Your task to perform on an android device: add a contact in the contacts app Image 0: 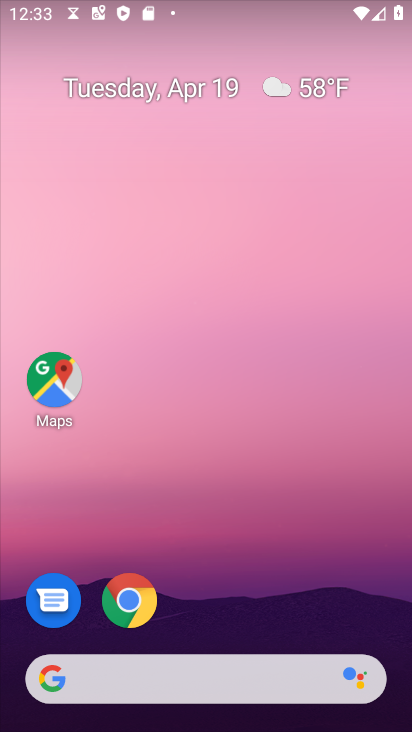
Step 0: drag from (252, 631) to (195, 287)
Your task to perform on an android device: add a contact in the contacts app Image 1: 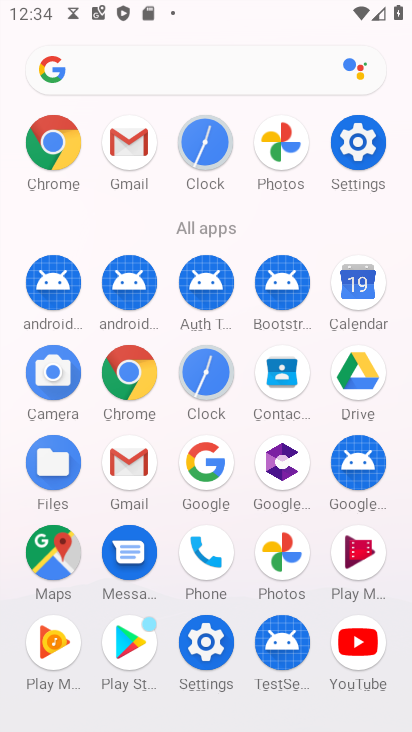
Step 1: click (278, 375)
Your task to perform on an android device: add a contact in the contacts app Image 2: 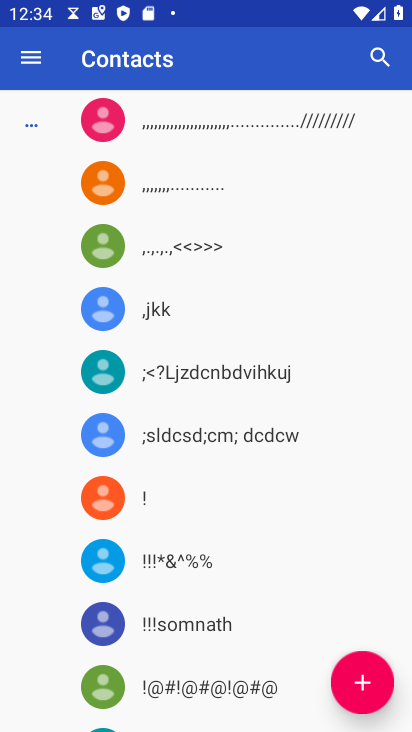
Step 2: click (365, 662)
Your task to perform on an android device: add a contact in the contacts app Image 3: 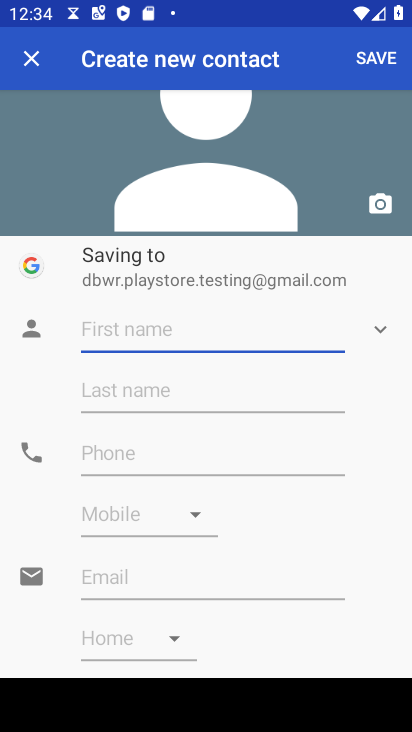
Step 3: type "dfhhh"
Your task to perform on an android device: add a contact in the contacts app Image 4: 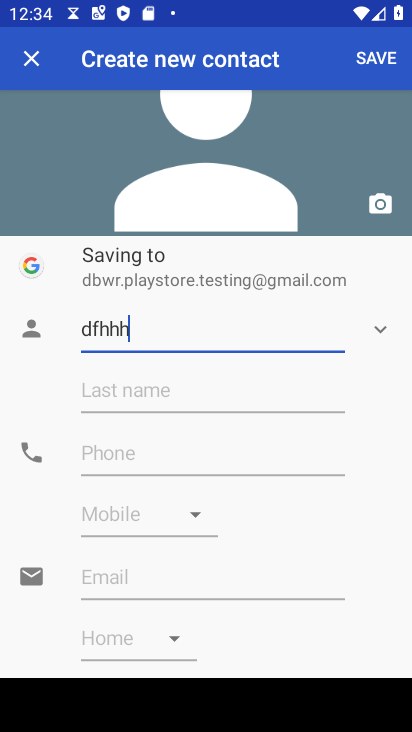
Step 4: click (190, 468)
Your task to perform on an android device: add a contact in the contacts app Image 5: 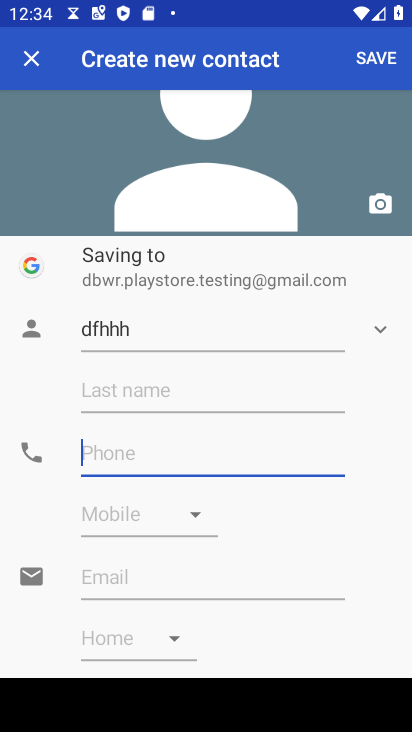
Step 5: type "45245567"
Your task to perform on an android device: add a contact in the contacts app Image 6: 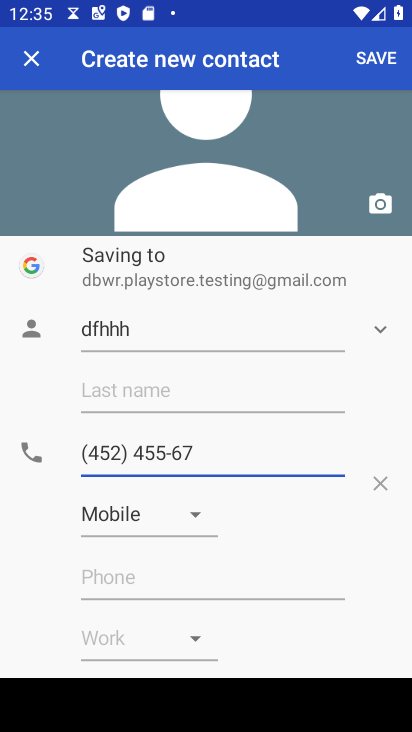
Step 6: type "]"
Your task to perform on an android device: add a contact in the contacts app Image 7: 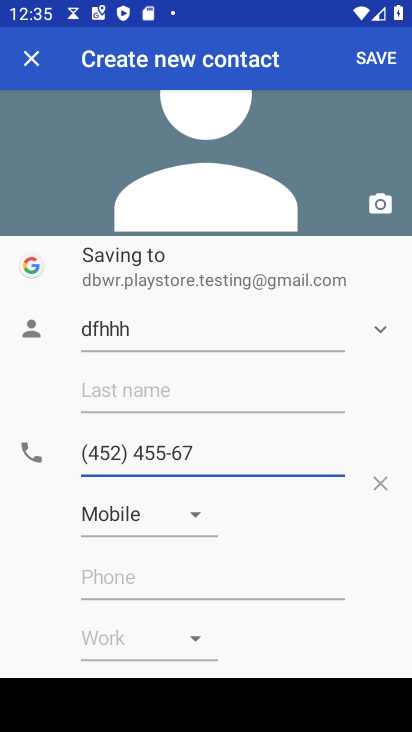
Step 7: click (382, 75)
Your task to perform on an android device: add a contact in the contacts app Image 8: 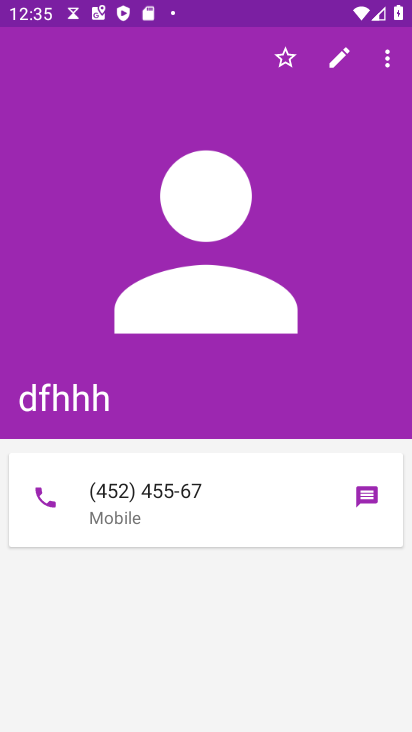
Step 8: task complete